Your task to perform on an android device: Search for pizza restaurants on Maps Image 0: 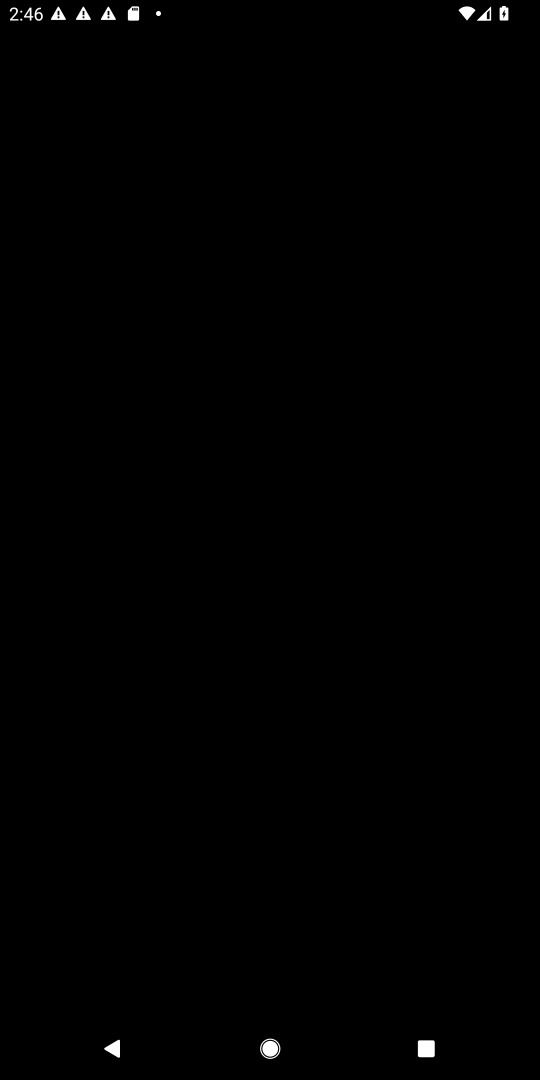
Step 0: task complete